Your task to perform on an android device: turn off smart reply in the gmail app Image 0: 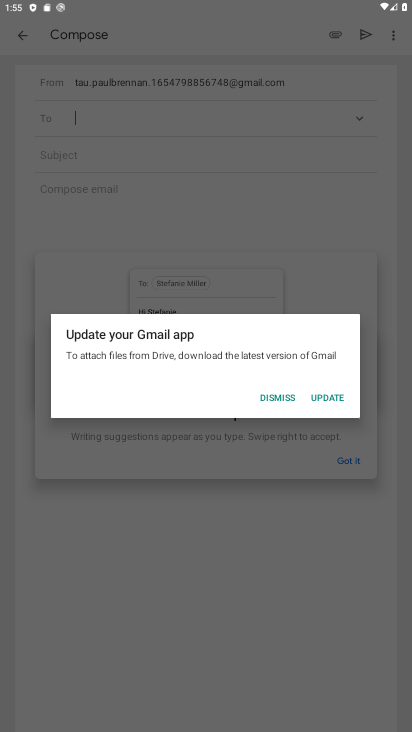
Step 0: press home button
Your task to perform on an android device: turn off smart reply in the gmail app Image 1: 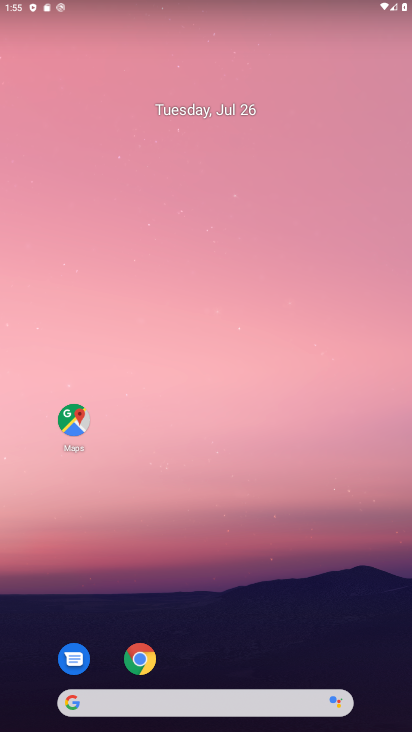
Step 1: drag from (249, 664) to (298, 52)
Your task to perform on an android device: turn off smart reply in the gmail app Image 2: 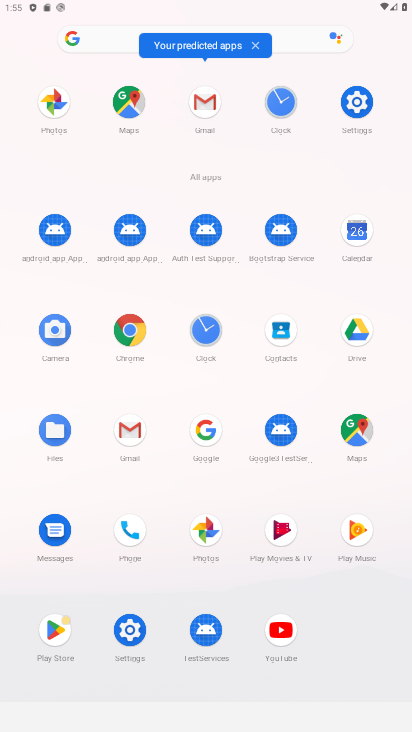
Step 2: click (198, 107)
Your task to perform on an android device: turn off smart reply in the gmail app Image 3: 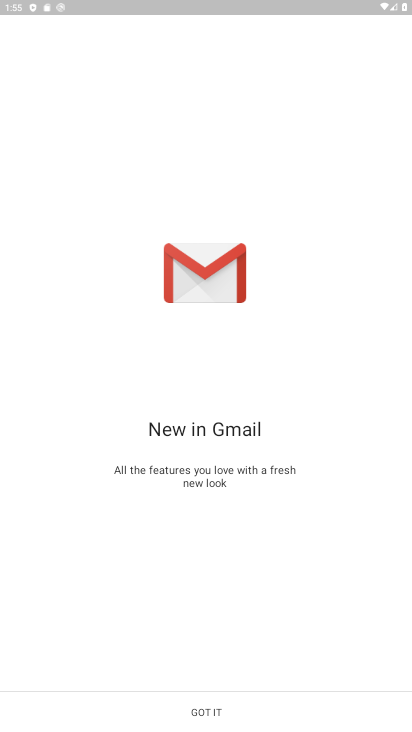
Step 3: click (208, 716)
Your task to perform on an android device: turn off smart reply in the gmail app Image 4: 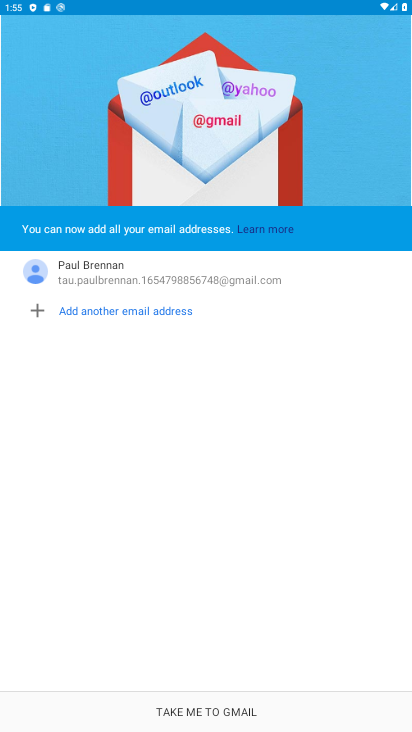
Step 4: click (208, 716)
Your task to perform on an android device: turn off smart reply in the gmail app Image 5: 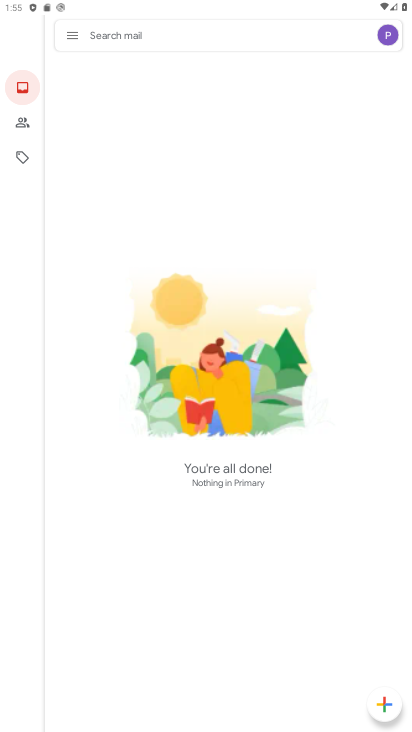
Step 5: click (68, 33)
Your task to perform on an android device: turn off smart reply in the gmail app Image 6: 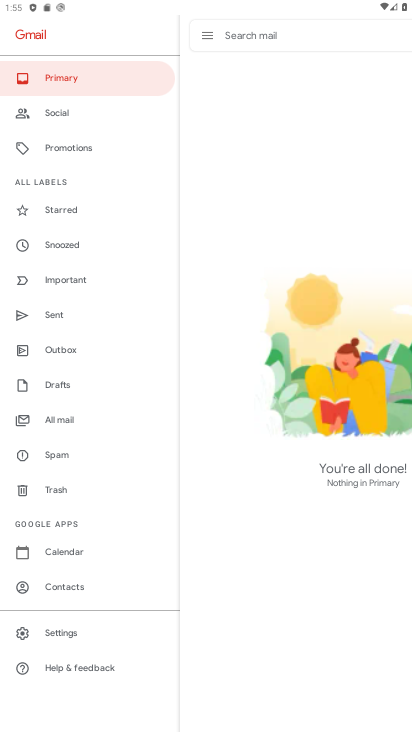
Step 6: click (65, 632)
Your task to perform on an android device: turn off smart reply in the gmail app Image 7: 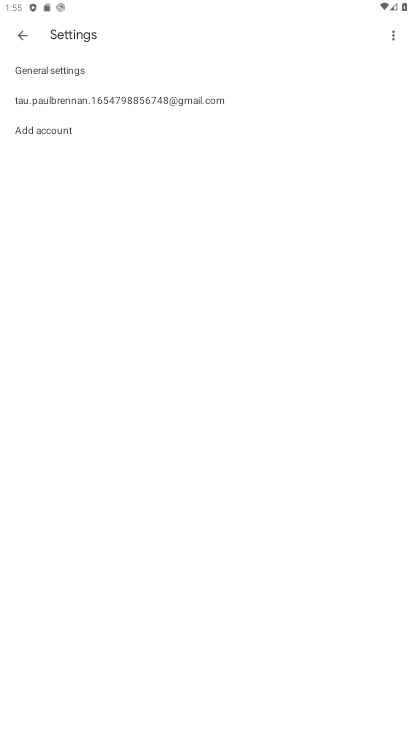
Step 7: click (125, 97)
Your task to perform on an android device: turn off smart reply in the gmail app Image 8: 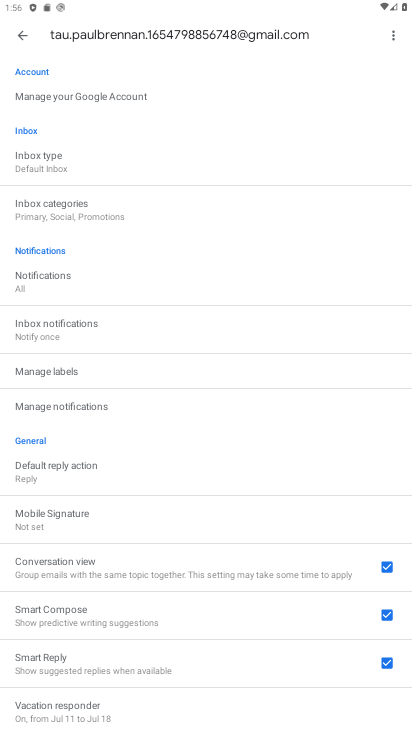
Step 8: click (391, 659)
Your task to perform on an android device: turn off smart reply in the gmail app Image 9: 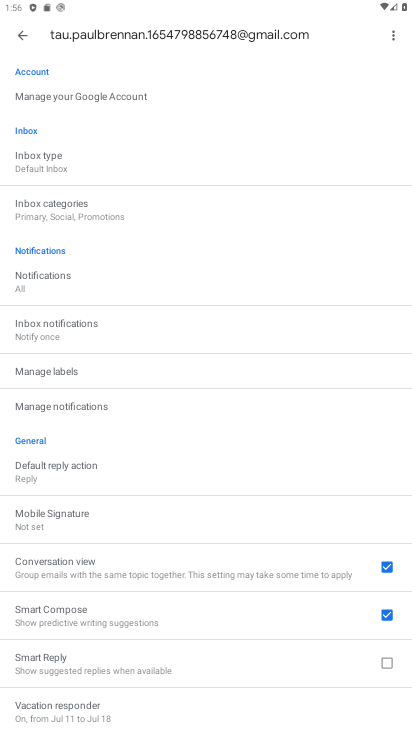
Step 9: click (387, 663)
Your task to perform on an android device: turn off smart reply in the gmail app Image 10: 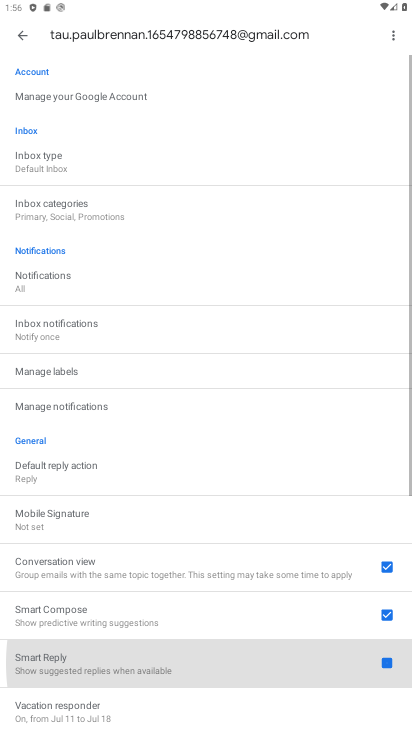
Step 10: task complete